Your task to perform on an android device: open device folders in google photos Image 0: 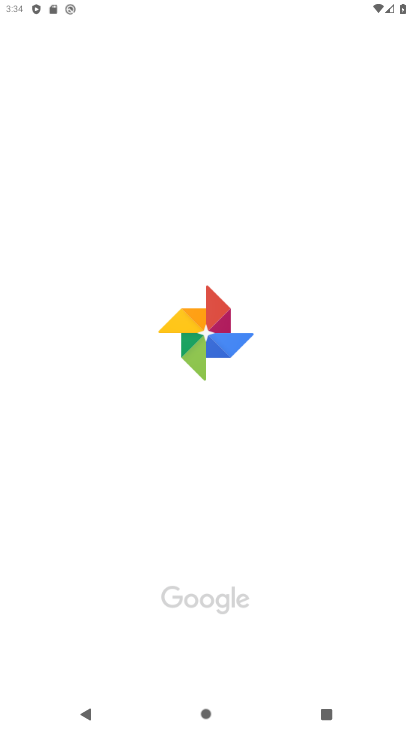
Step 0: drag from (234, 611) to (264, 66)
Your task to perform on an android device: open device folders in google photos Image 1: 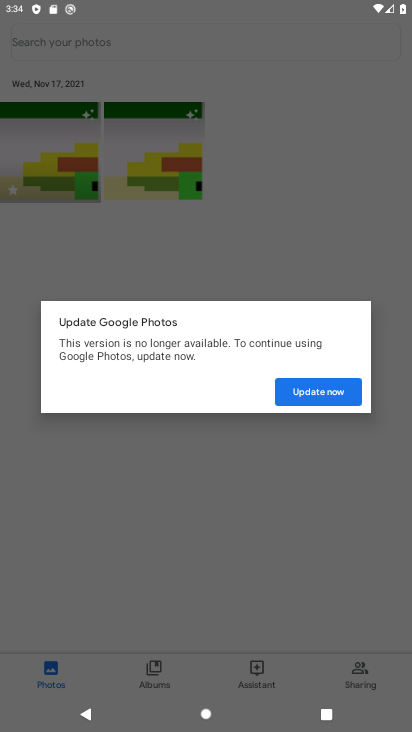
Step 1: press home button
Your task to perform on an android device: open device folders in google photos Image 2: 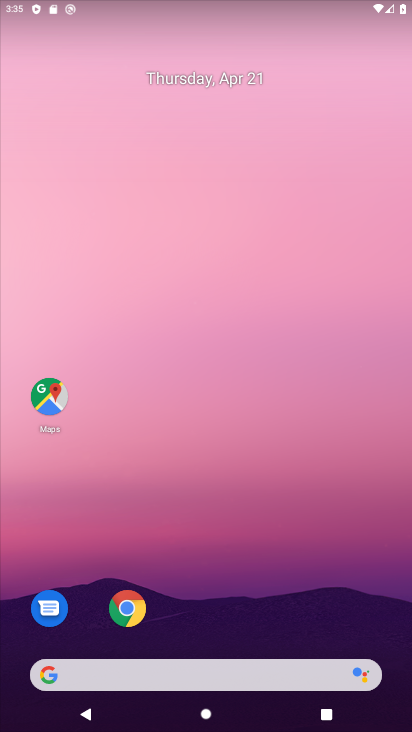
Step 2: drag from (259, 561) to (311, 281)
Your task to perform on an android device: open device folders in google photos Image 3: 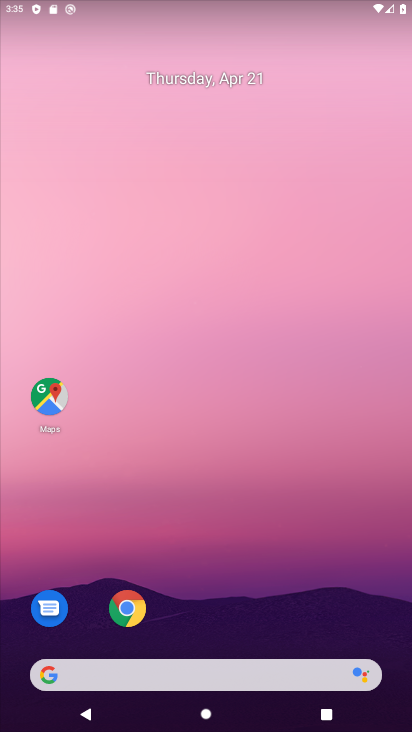
Step 3: drag from (245, 592) to (286, 33)
Your task to perform on an android device: open device folders in google photos Image 4: 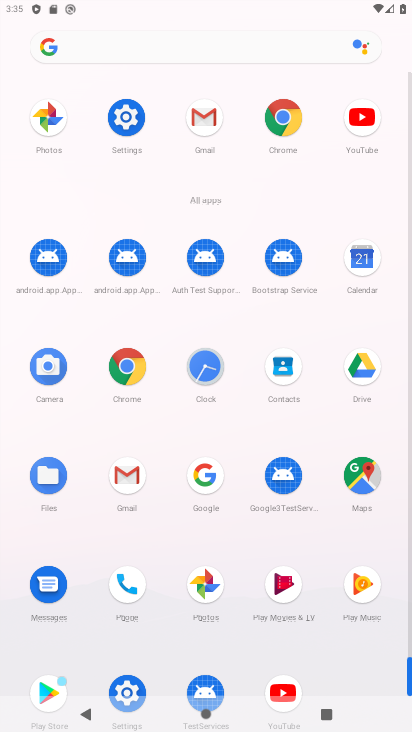
Step 4: click (198, 598)
Your task to perform on an android device: open device folders in google photos Image 5: 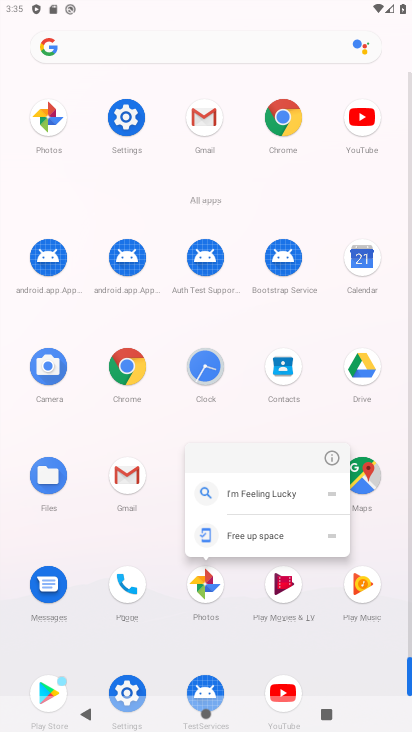
Step 5: click (203, 590)
Your task to perform on an android device: open device folders in google photos Image 6: 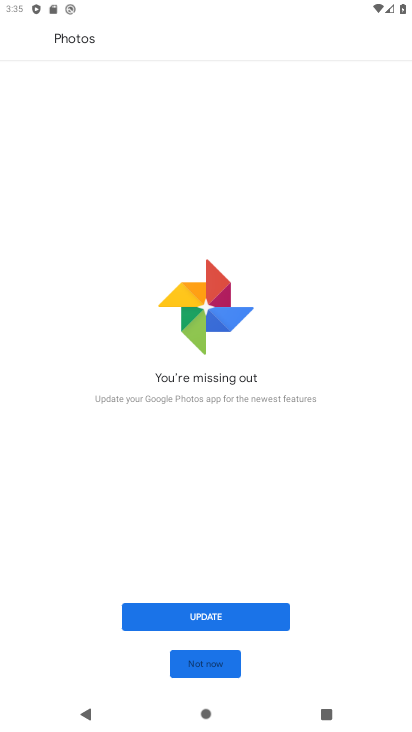
Step 6: click (192, 613)
Your task to perform on an android device: open device folders in google photos Image 7: 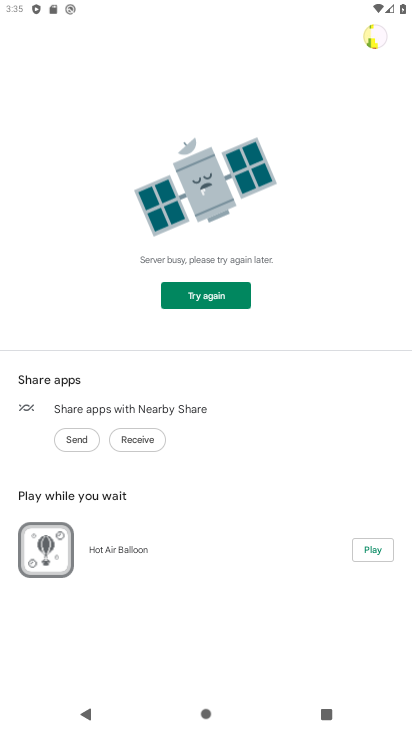
Step 7: press back button
Your task to perform on an android device: open device folders in google photos Image 8: 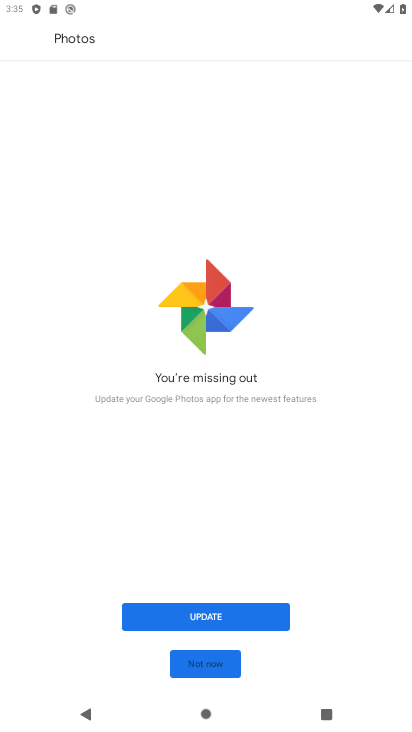
Step 8: click (184, 610)
Your task to perform on an android device: open device folders in google photos Image 9: 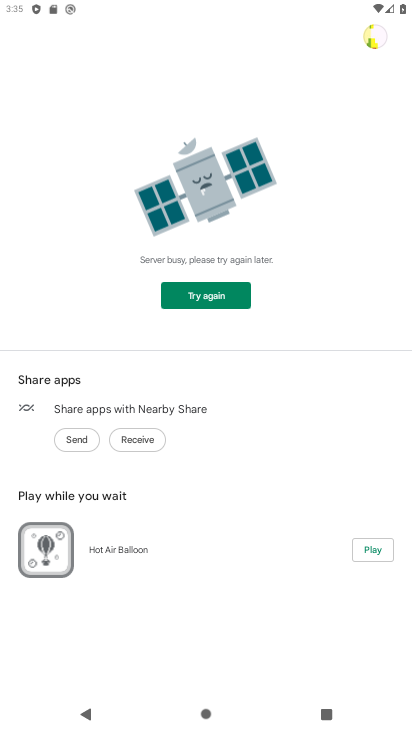
Step 9: click (192, 290)
Your task to perform on an android device: open device folders in google photos Image 10: 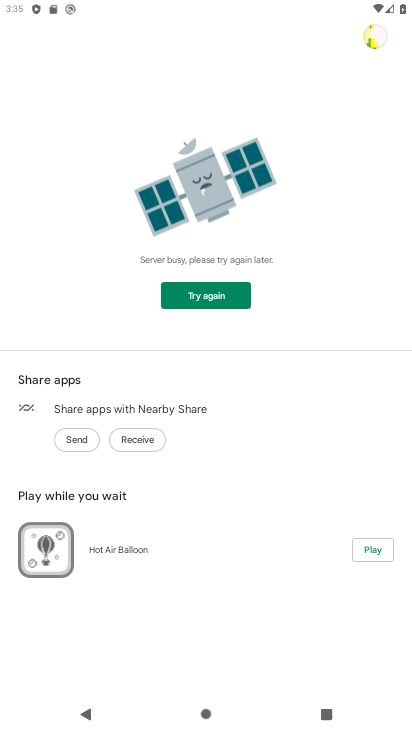
Step 10: task complete